Your task to perform on an android device: turn off wifi Image 0: 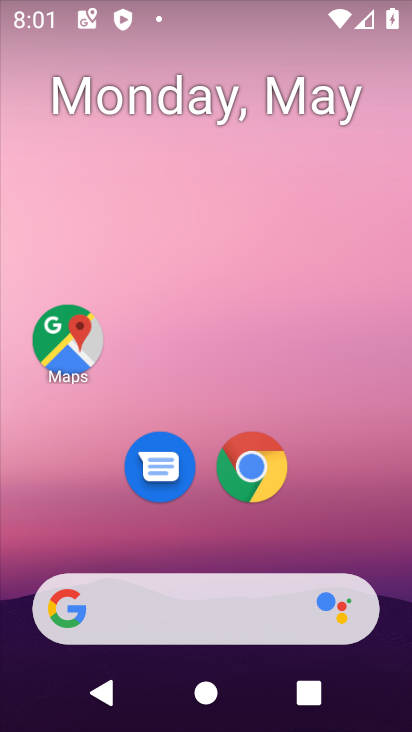
Step 0: drag from (346, 549) to (257, 7)
Your task to perform on an android device: turn off wifi Image 1: 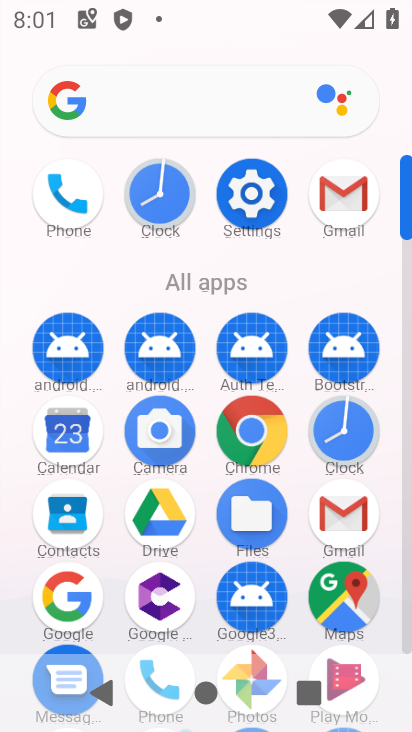
Step 1: click (266, 198)
Your task to perform on an android device: turn off wifi Image 2: 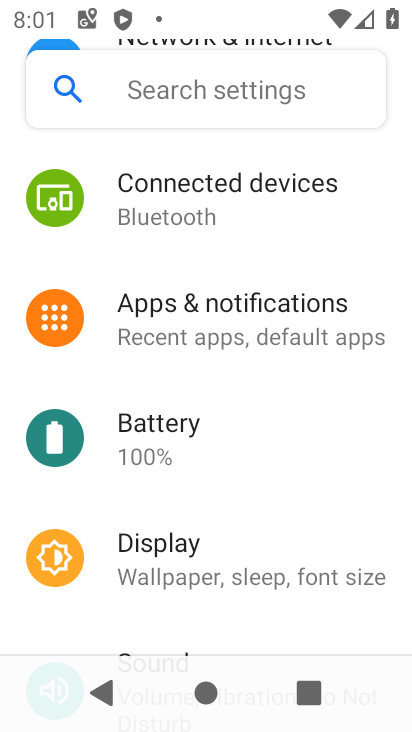
Step 2: drag from (263, 247) to (274, 537)
Your task to perform on an android device: turn off wifi Image 3: 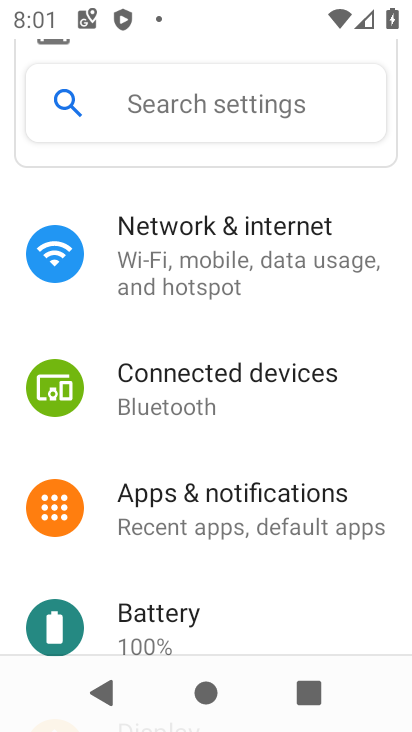
Step 3: click (259, 251)
Your task to perform on an android device: turn off wifi Image 4: 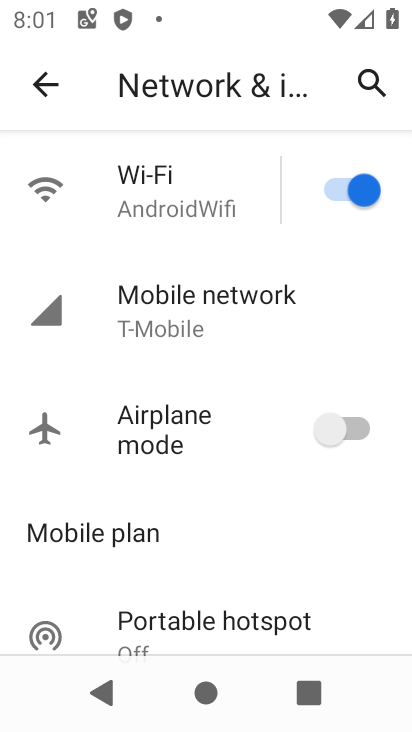
Step 4: click (361, 184)
Your task to perform on an android device: turn off wifi Image 5: 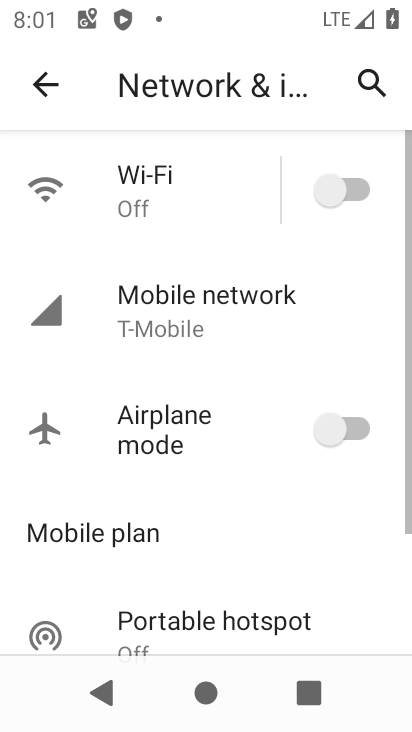
Step 5: task complete